Your task to perform on an android device: Go to display settings Image 0: 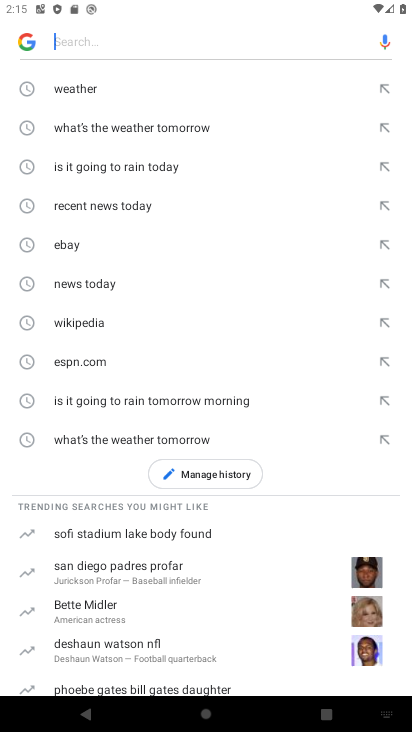
Step 0: press home button
Your task to perform on an android device: Go to display settings Image 1: 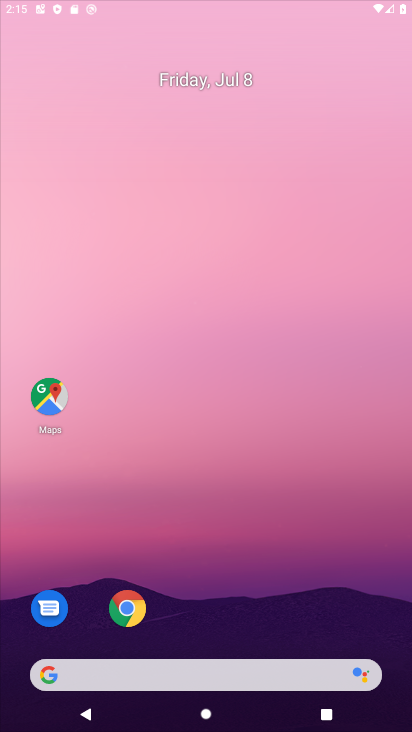
Step 1: drag from (260, 671) to (236, 25)
Your task to perform on an android device: Go to display settings Image 2: 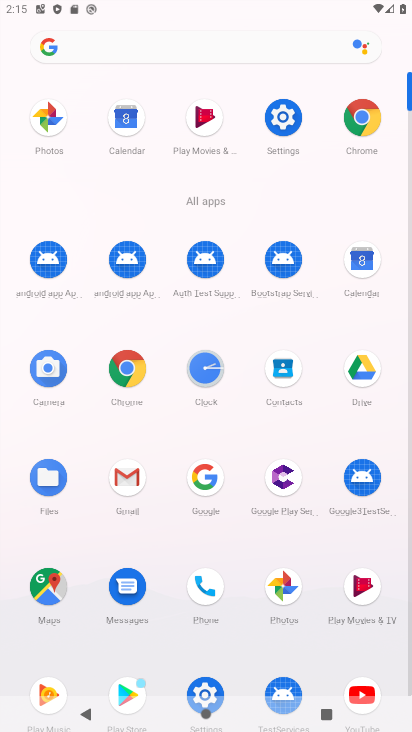
Step 2: click (286, 103)
Your task to perform on an android device: Go to display settings Image 3: 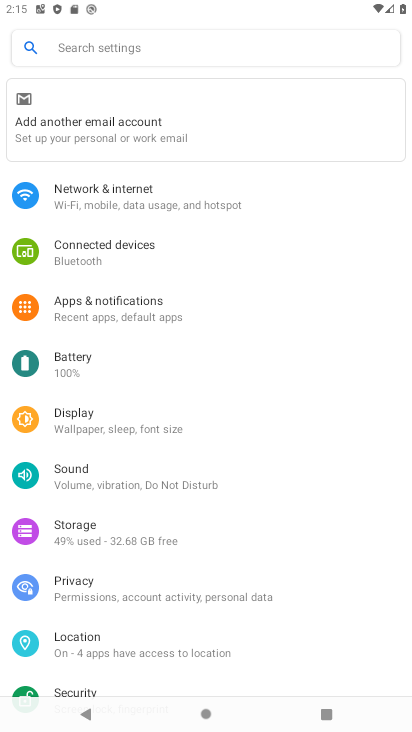
Step 3: click (131, 424)
Your task to perform on an android device: Go to display settings Image 4: 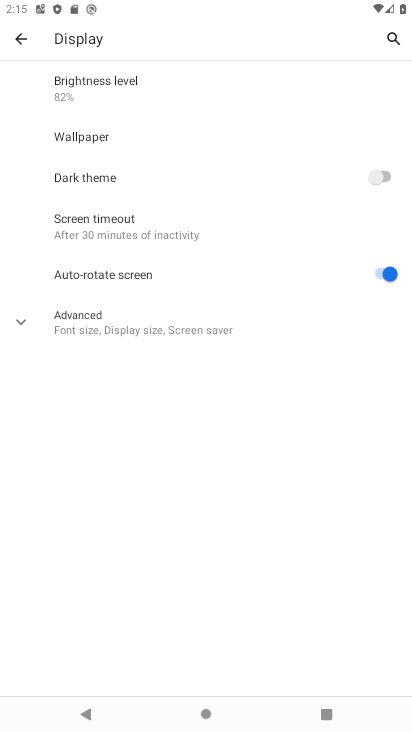
Step 4: task complete